Your task to perform on an android device: Go to eBay Image 0: 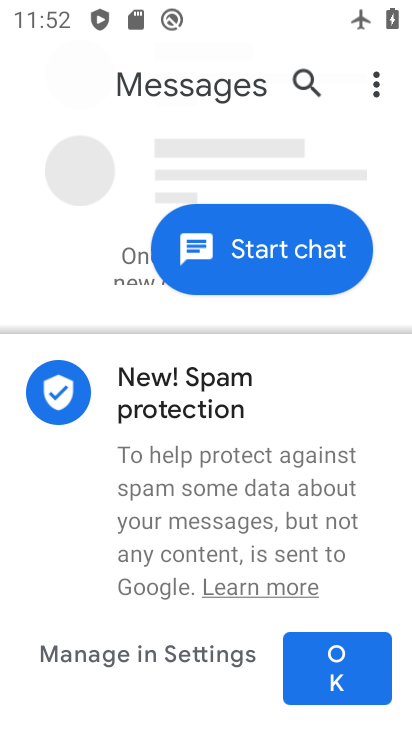
Step 0: press home button
Your task to perform on an android device: Go to eBay Image 1: 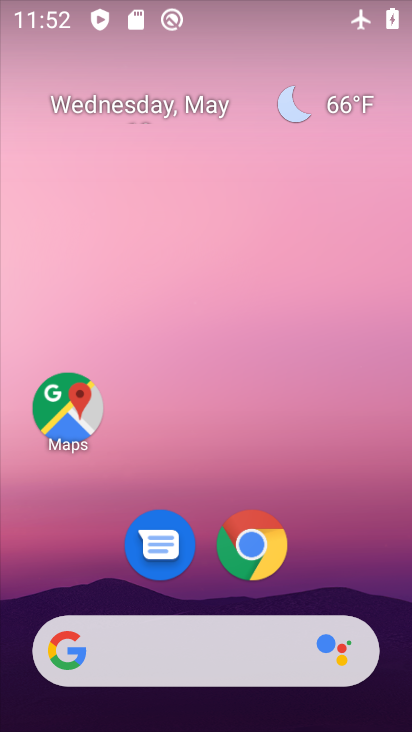
Step 1: click (242, 659)
Your task to perform on an android device: Go to eBay Image 2: 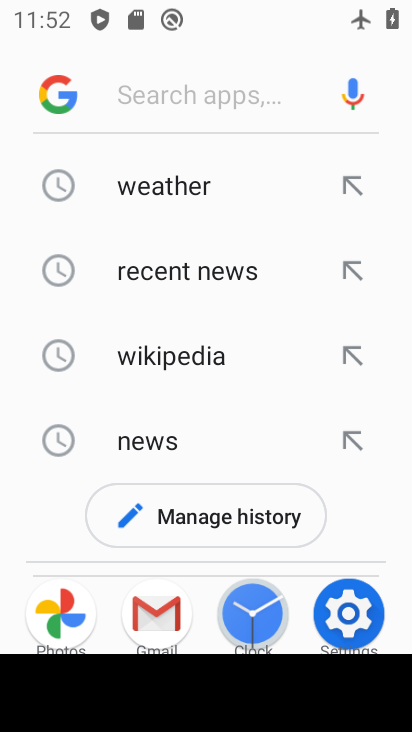
Step 2: type "ebay"
Your task to perform on an android device: Go to eBay Image 3: 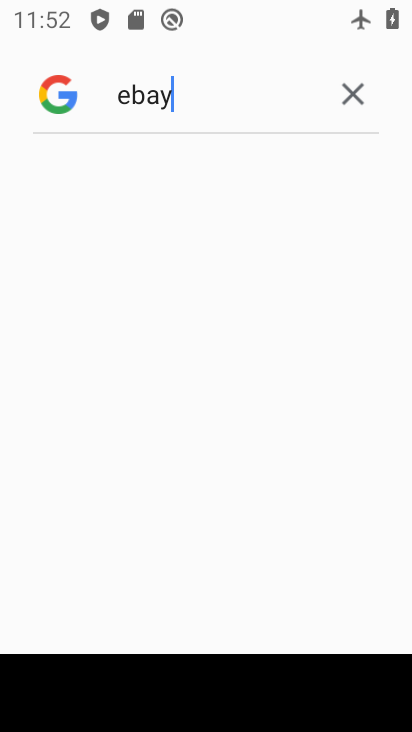
Step 3: task complete